Your task to perform on an android device: delete location history Image 0: 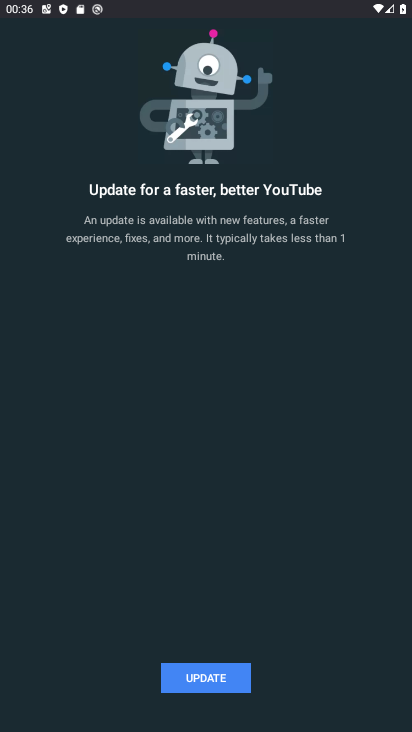
Step 0: press back button
Your task to perform on an android device: delete location history Image 1: 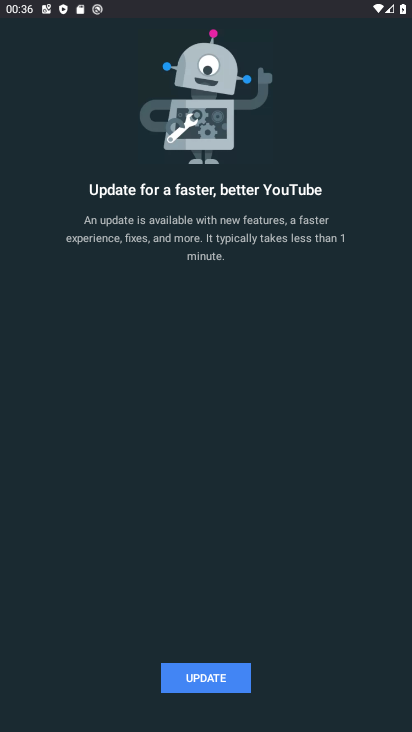
Step 1: press back button
Your task to perform on an android device: delete location history Image 2: 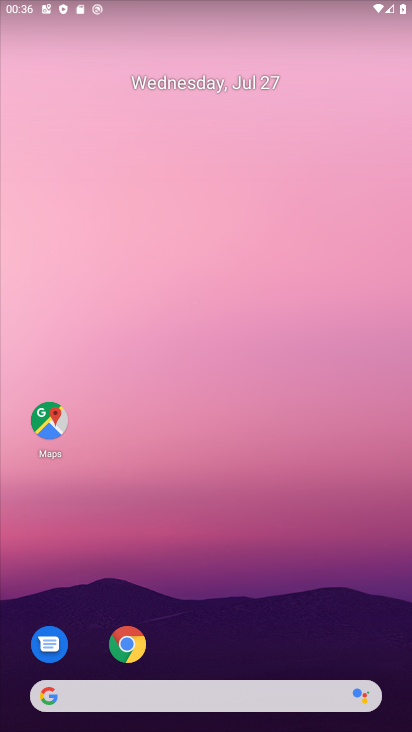
Step 2: drag from (274, 590) to (214, 135)
Your task to perform on an android device: delete location history Image 3: 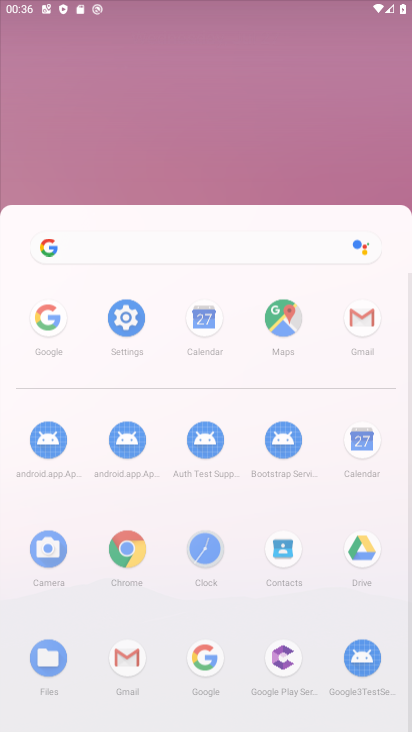
Step 3: drag from (261, 428) to (230, 63)
Your task to perform on an android device: delete location history Image 4: 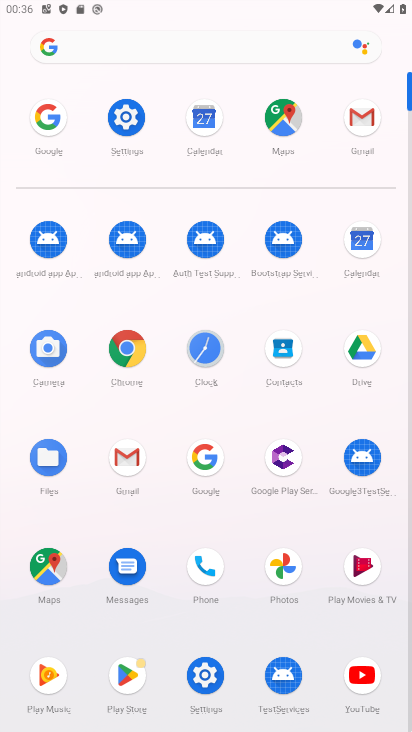
Step 4: click (119, 116)
Your task to perform on an android device: delete location history Image 5: 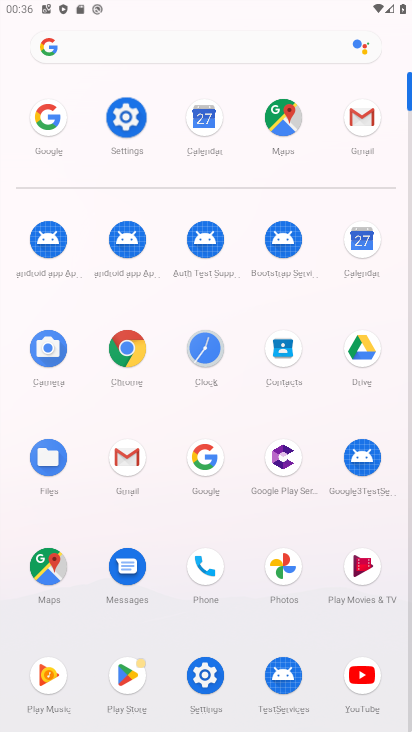
Step 5: click (119, 116)
Your task to perform on an android device: delete location history Image 6: 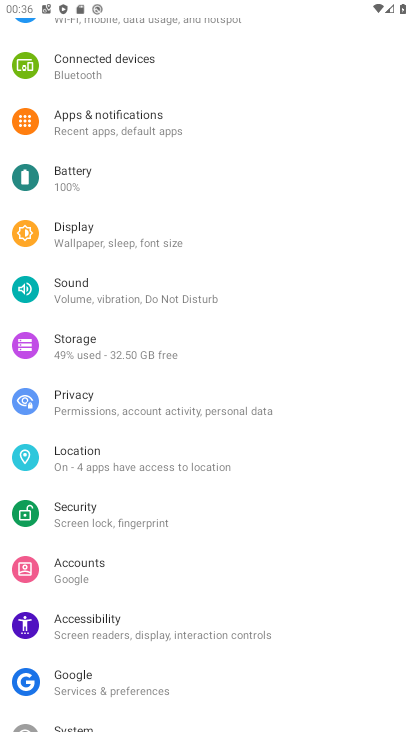
Step 6: click (83, 443)
Your task to perform on an android device: delete location history Image 7: 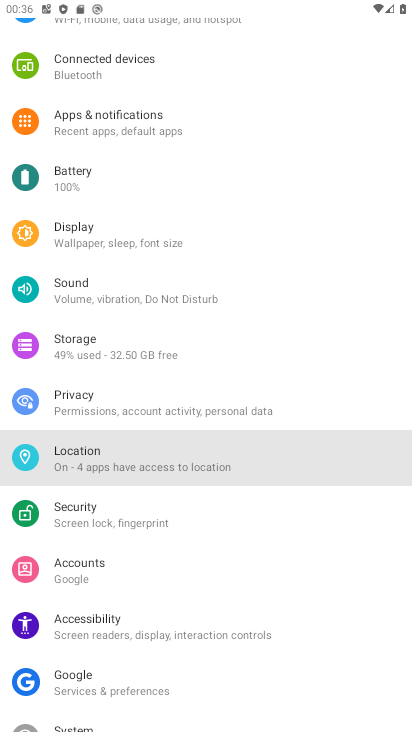
Step 7: click (91, 446)
Your task to perform on an android device: delete location history Image 8: 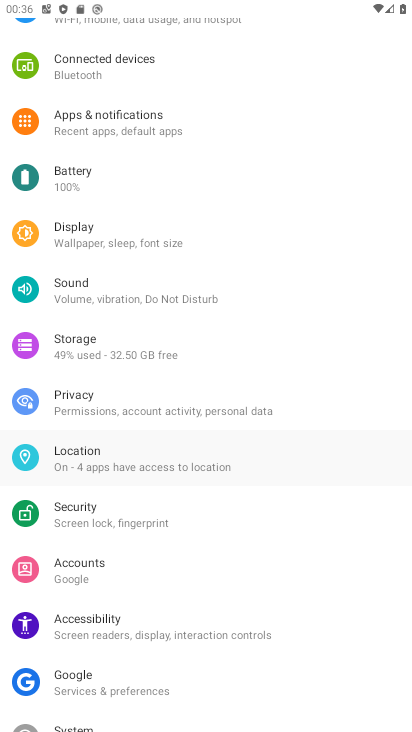
Step 8: click (89, 447)
Your task to perform on an android device: delete location history Image 9: 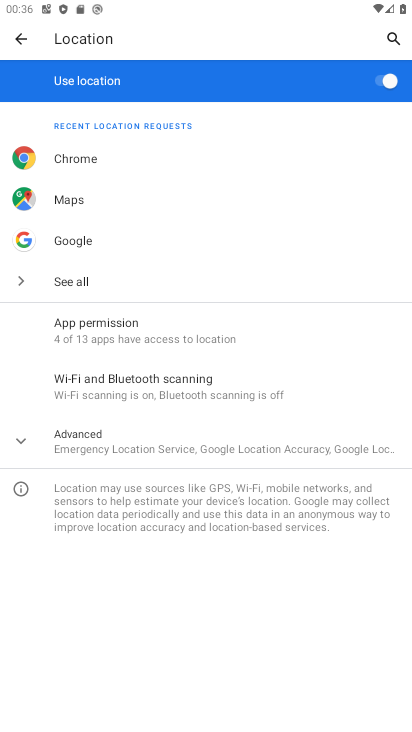
Step 9: click (94, 443)
Your task to perform on an android device: delete location history Image 10: 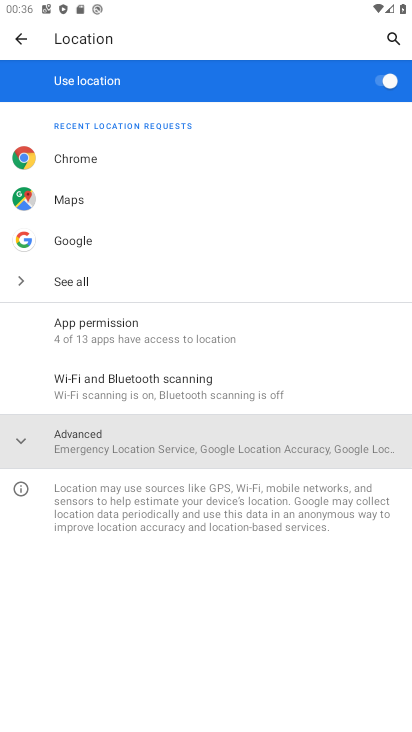
Step 10: click (95, 440)
Your task to perform on an android device: delete location history Image 11: 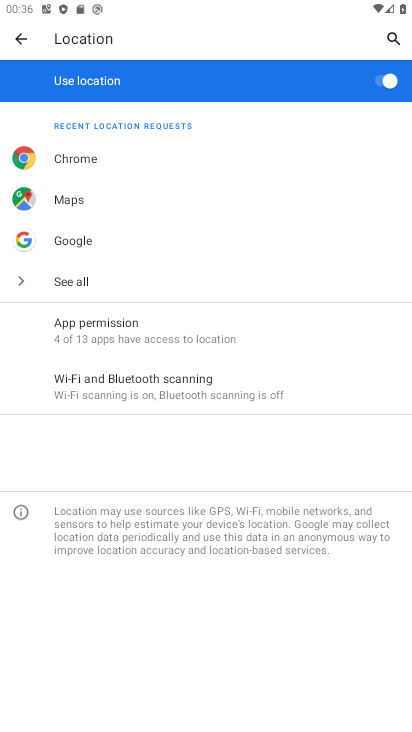
Step 11: click (95, 439)
Your task to perform on an android device: delete location history Image 12: 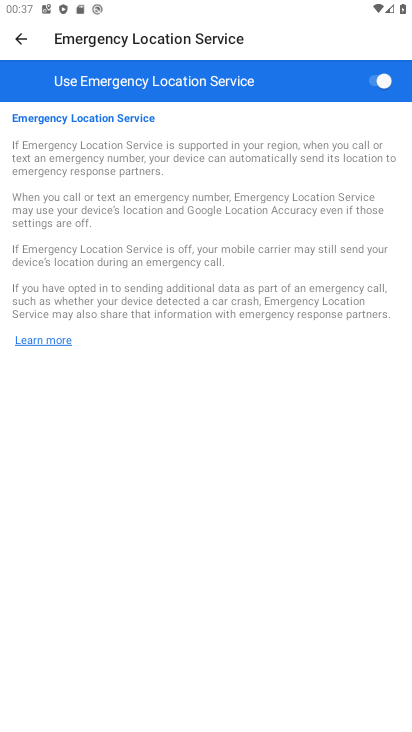
Step 12: click (15, 39)
Your task to perform on an android device: delete location history Image 13: 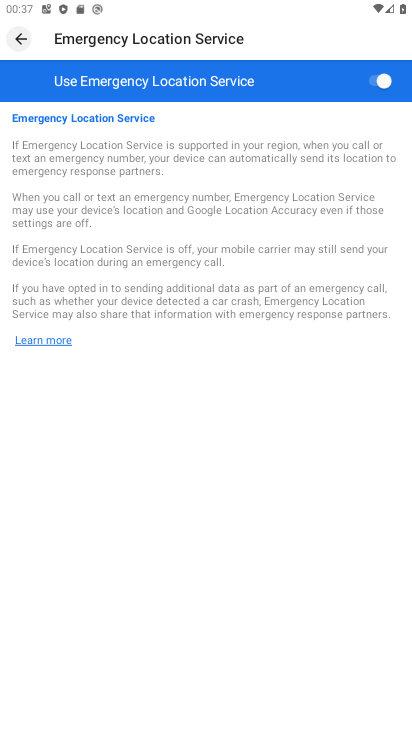
Step 13: click (15, 39)
Your task to perform on an android device: delete location history Image 14: 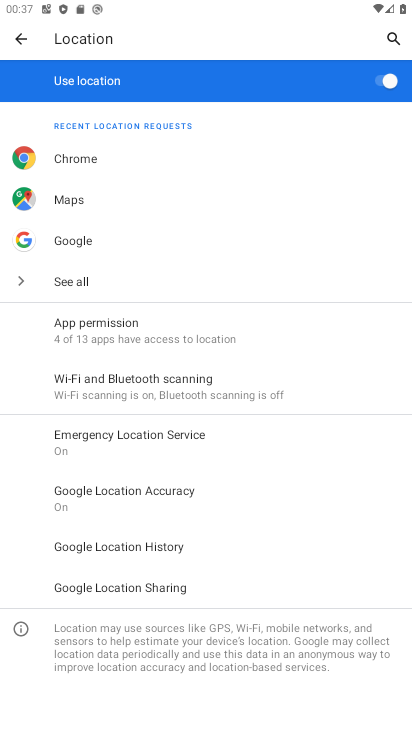
Step 14: click (135, 550)
Your task to perform on an android device: delete location history Image 15: 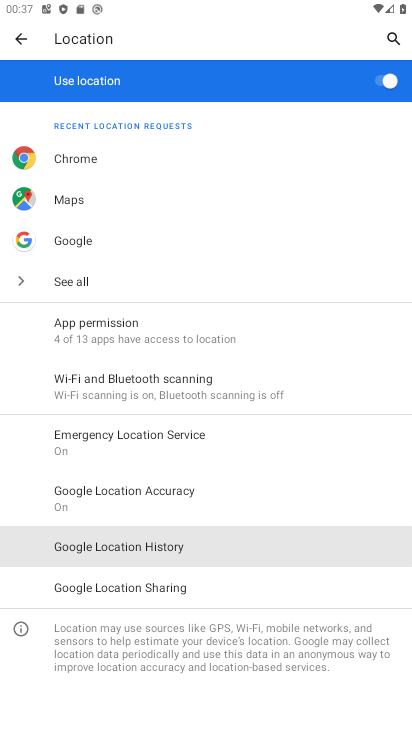
Step 15: click (135, 550)
Your task to perform on an android device: delete location history Image 16: 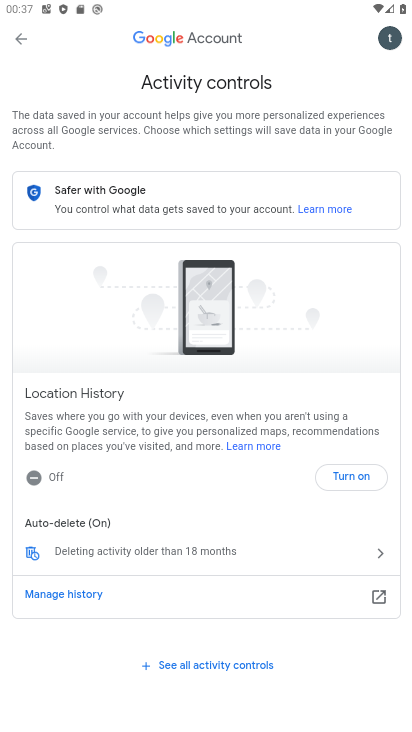
Step 16: task complete